Your task to perform on an android device: Open Chrome and go to the settings page Image 0: 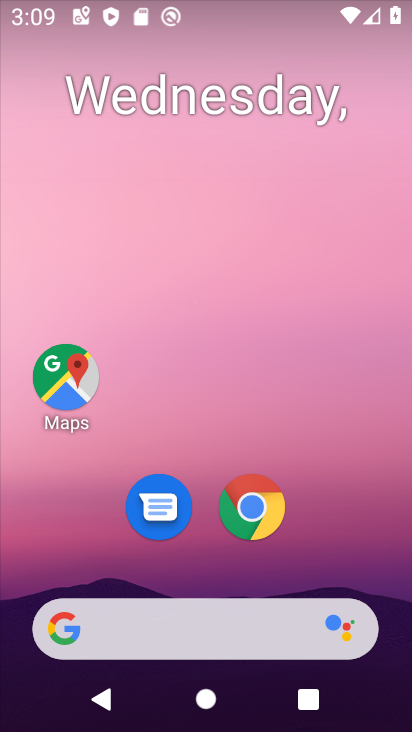
Step 0: click (263, 501)
Your task to perform on an android device: Open Chrome and go to the settings page Image 1: 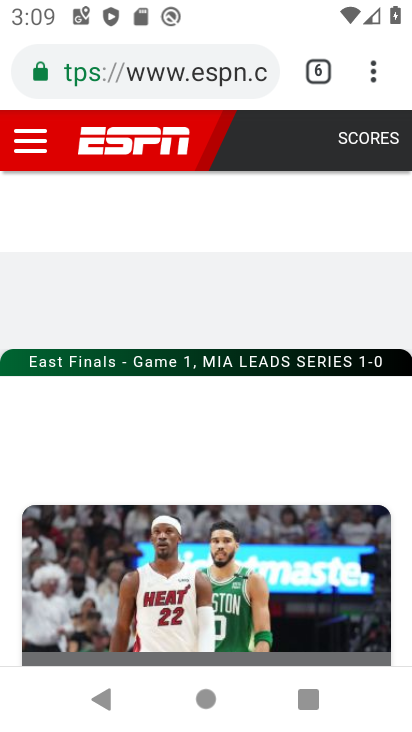
Step 1: click (363, 71)
Your task to perform on an android device: Open Chrome and go to the settings page Image 2: 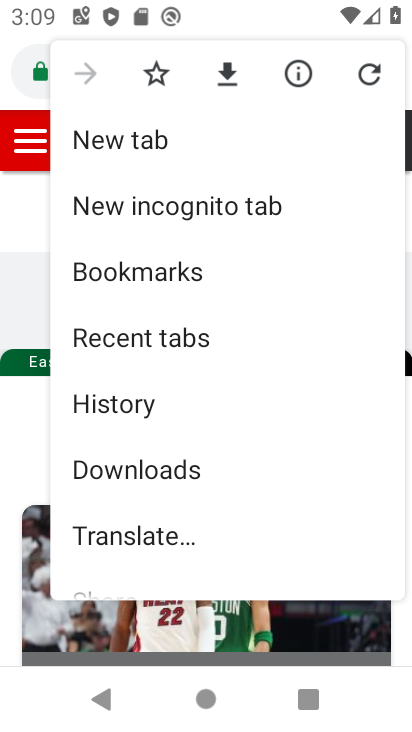
Step 2: click (405, 507)
Your task to perform on an android device: Open Chrome and go to the settings page Image 3: 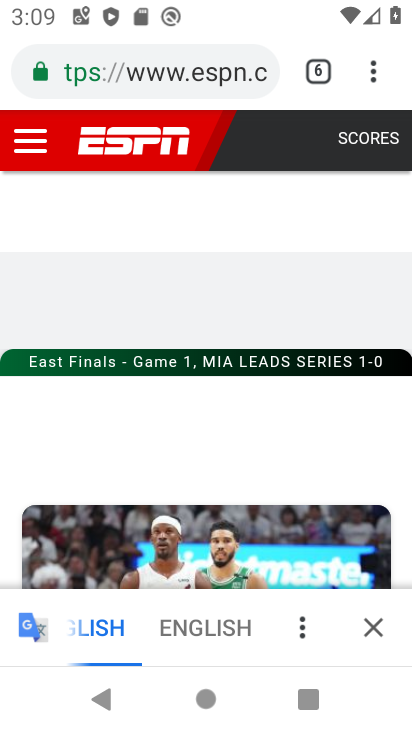
Step 3: click (366, 91)
Your task to perform on an android device: Open Chrome and go to the settings page Image 4: 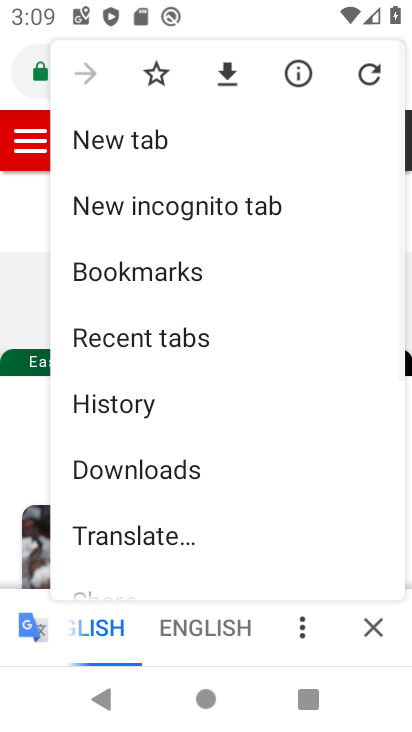
Step 4: drag from (274, 522) to (320, 160)
Your task to perform on an android device: Open Chrome and go to the settings page Image 5: 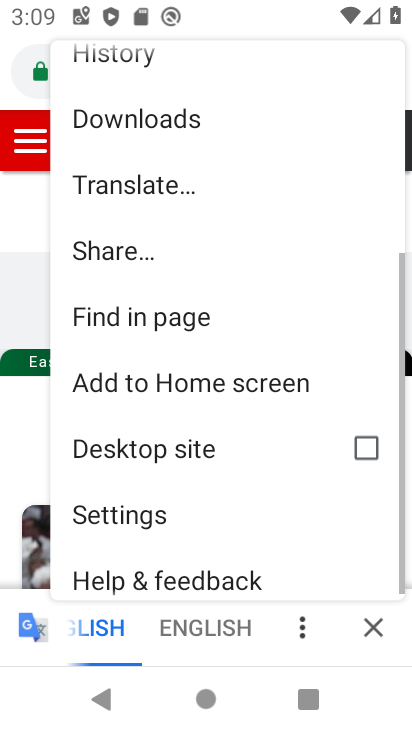
Step 5: click (164, 523)
Your task to perform on an android device: Open Chrome and go to the settings page Image 6: 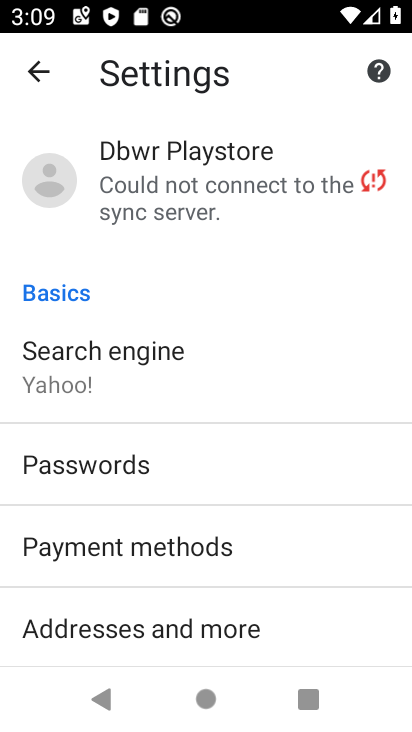
Step 6: task complete